Your task to perform on an android device: turn on airplane mode Image 0: 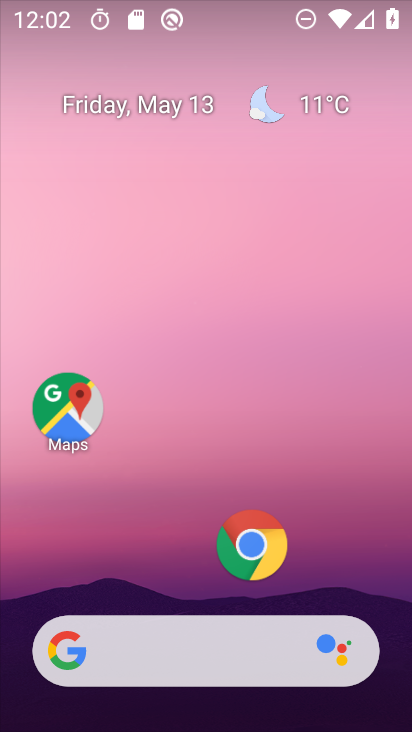
Step 0: drag from (193, 599) to (236, 38)
Your task to perform on an android device: turn on airplane mode Image 1: 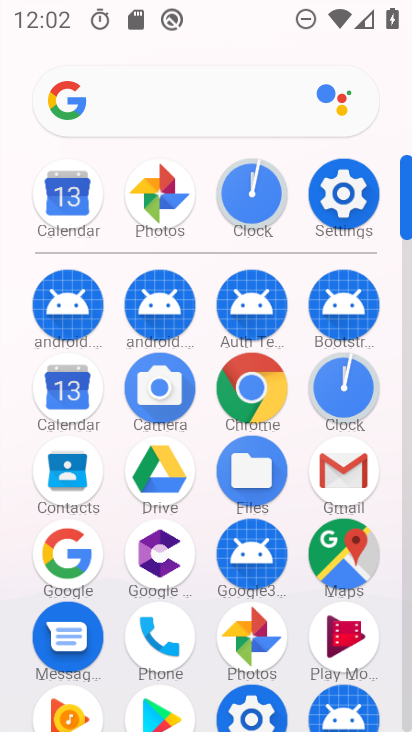
Step 1: drag from (247, 7) to (247, 613)
Your task to perform on an android device: turn on airplane mode Image 2: 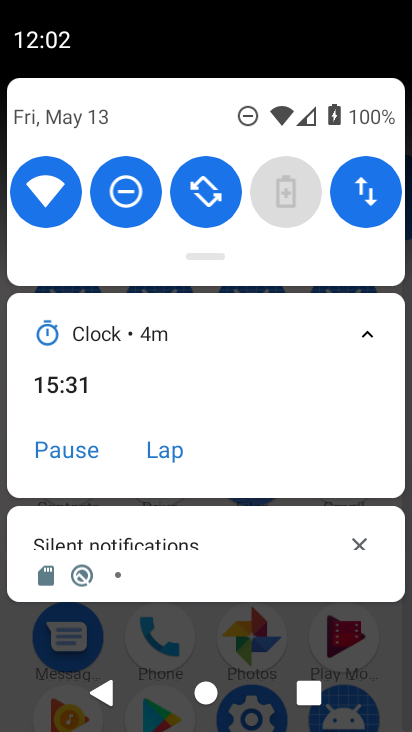
Step 2: drag from (217, 252) to (222, 715)
Your task to perform on an android device: turn on airplane mode Image 3: 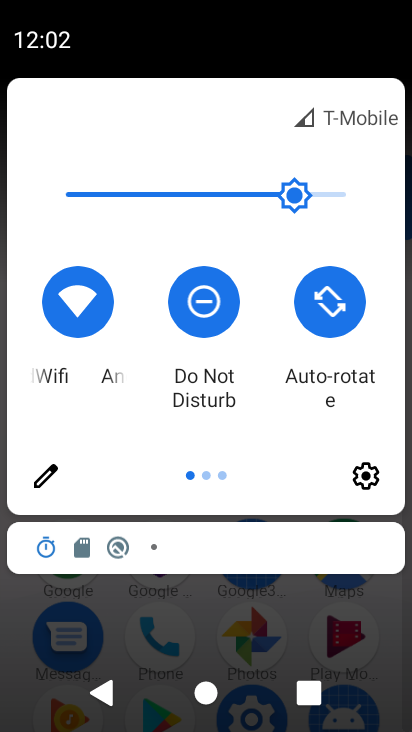
Step 3: drag from (364, 348) to (4, 351)
Your task to perform on an android device: turn on airplane mode Image 4: 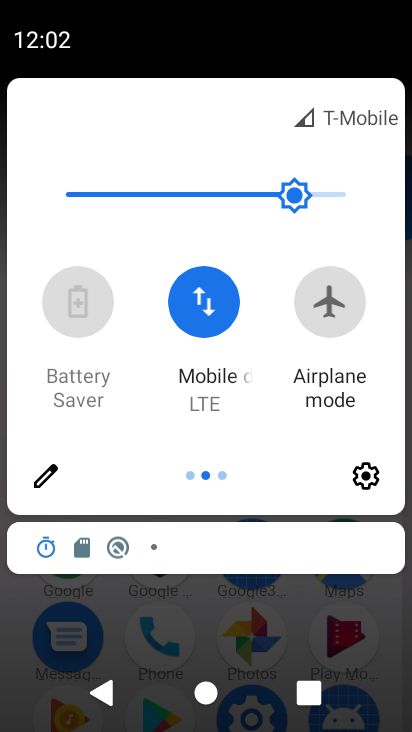
Step 4: click (330, 307)
Your task to perform on an android device: turn on airplane mode Image 5: 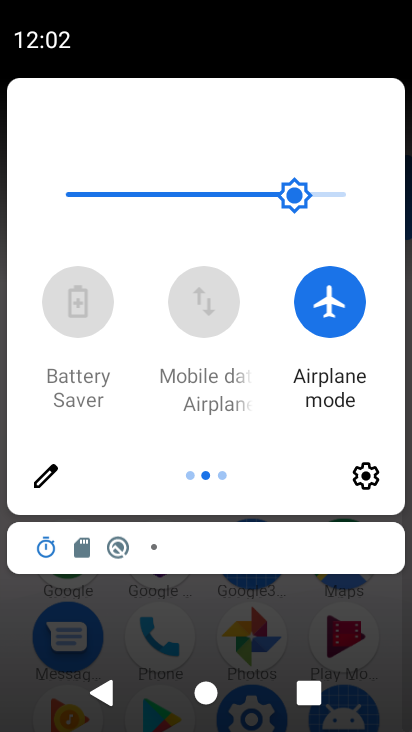
Step 5: task complete